Your task to perform on an android device: empty trash in the gmail app Image 0: 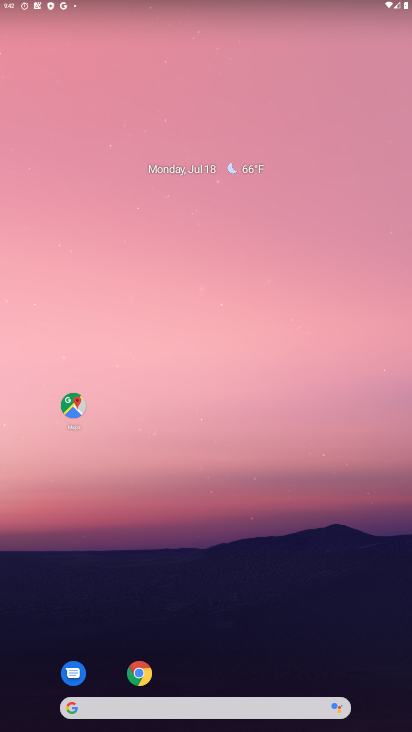
Step 0: drag from (191, 674) to (175, 161)
Your task to perform on an android device: empty trash in the gmail app Image 1: 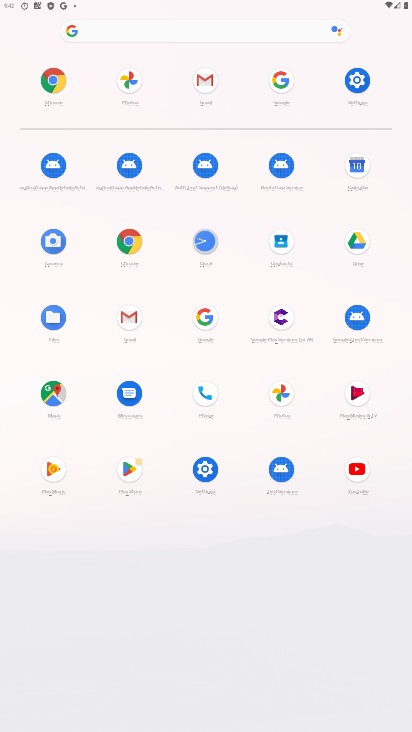
Step 1: click (125, 317)
Your task to perform on an android device: empty trash in the gmail app Image 2: 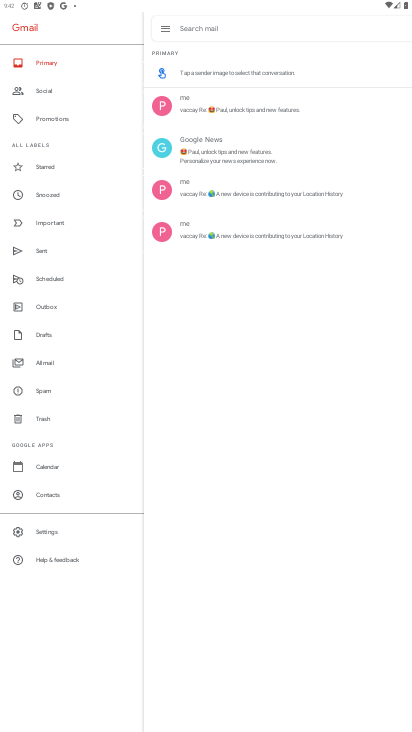
Step 2: click (45, 420)
Your task to perform on an android device: empty trash in the gmail app Image 3: 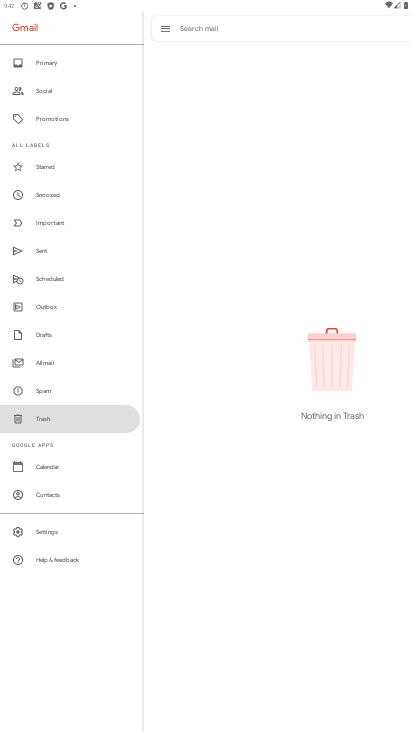
Step 3: task complete